Your task to perform on an android device: toggle translation in the chrome app Image 0: 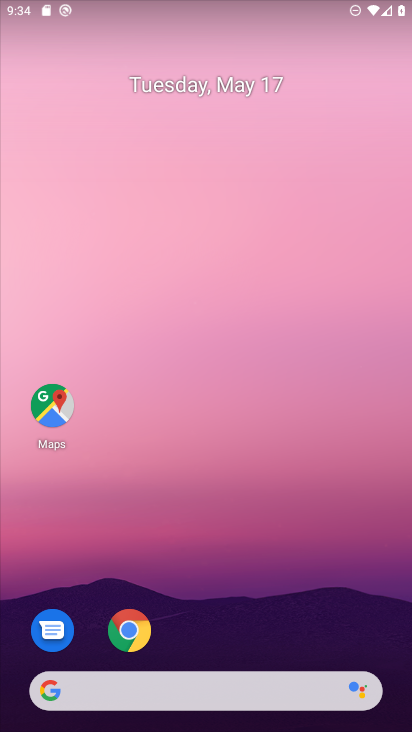
Step 0: drag from (318, 631) to (357, 151)
Your task to perform on an android device: toggle translation in the chrome app Image 1: 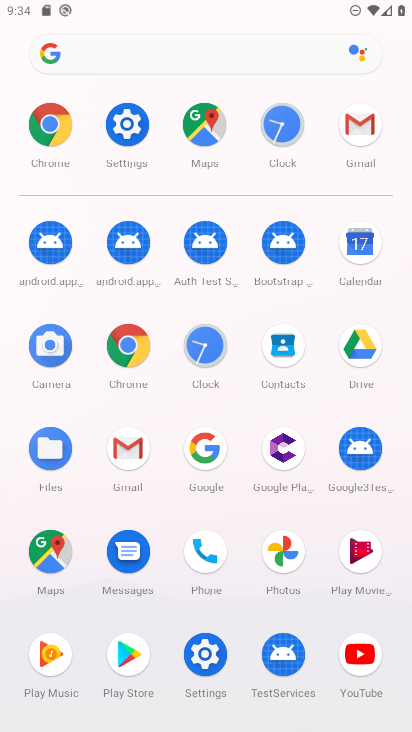
Step 1: click (137, 353)
Your task to perform on an android device: toggle translation in the chrome app Image 2: 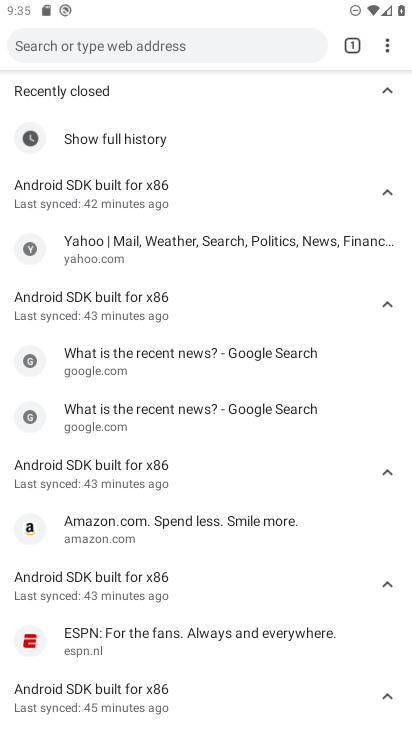
Step 2: click (388, 49)
Your task to perform on an android device: toggle translation in the chrome app Image 3: 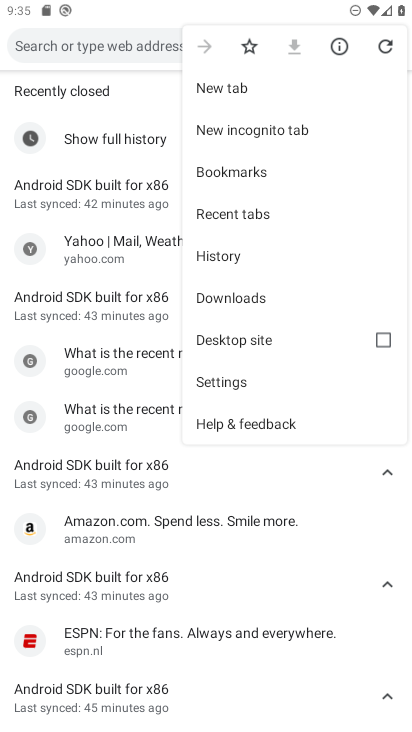
Step 3: click (283, 389)
Your task to perform on an android device: toggle translation in the chrome app Image 4: 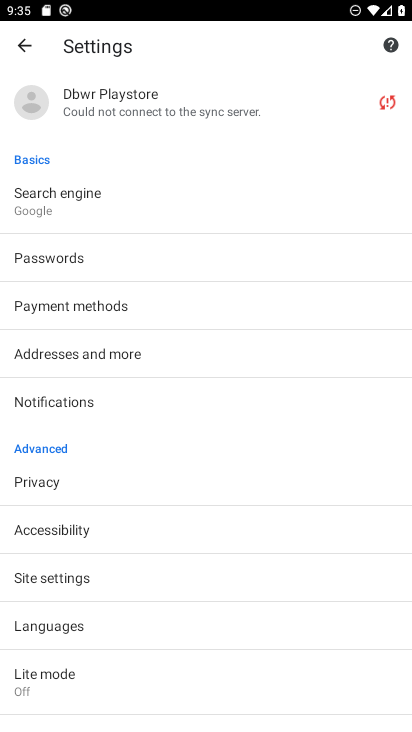
Step 4: drag from (190, 570) to (213, 404)
Your task to perform on an android device: toggle translation in the chrome app Image 5: 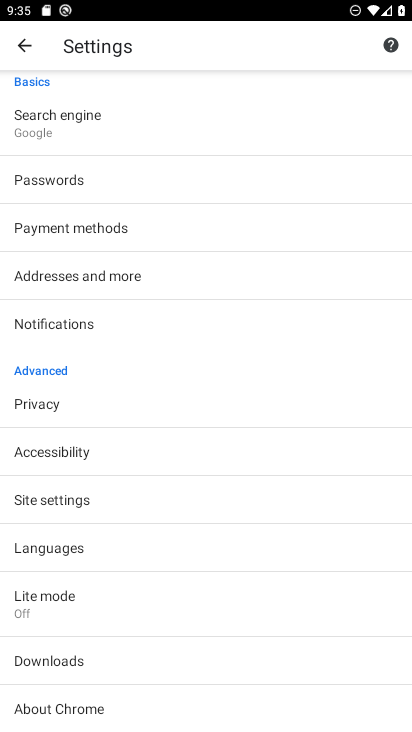
Step 5: click (184, 556)
Your task to perform on an android device: toggle translation in the chrome app Image 6: 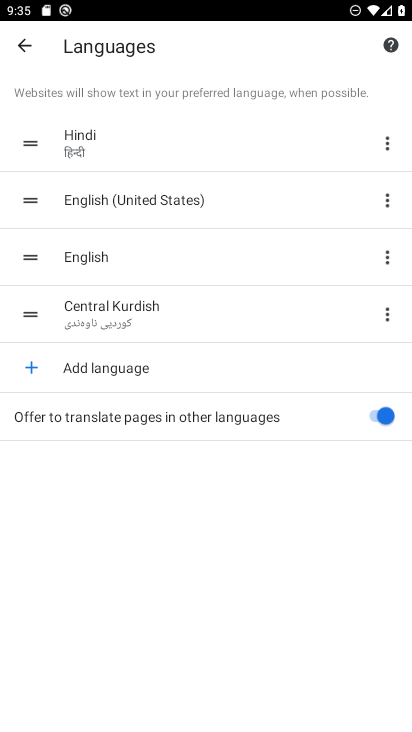
Step 6: click (374, 414)
Your task to perform on an android device: toggle translation in the chrome app Image 7: 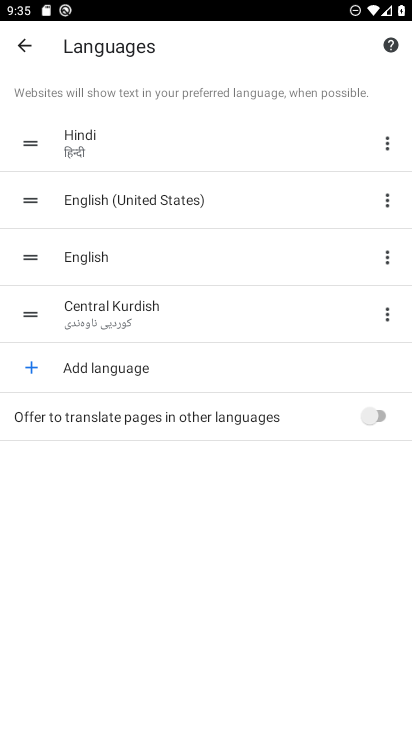
Step 7: task complete